Your task to perform on an android device: Go to Maps Image 0: 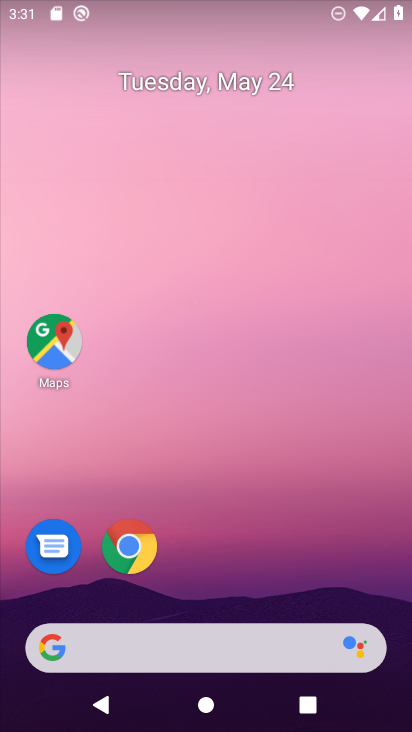
Step 0: click (56, 336)
Your task to perform on an android device: Go to Maps Image 1: 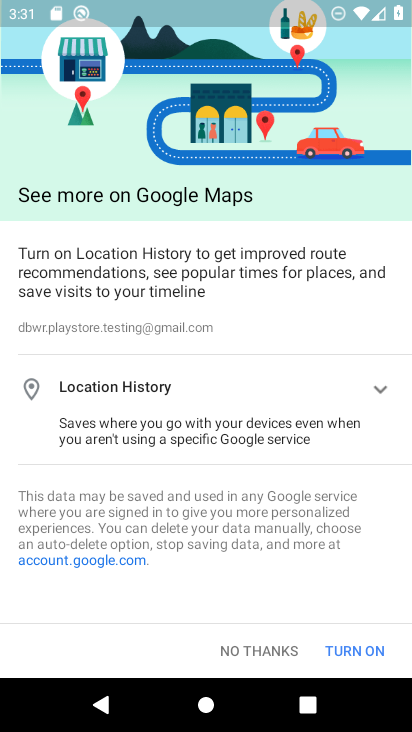
Step 1: click (265, 653)
Your task to perform on an android device: Go to Maps Image 2: 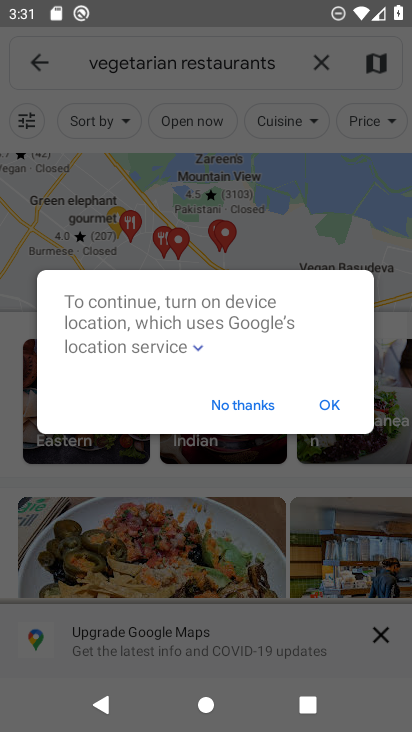
Step 2: click (263, 398)
Your task to perform on an android device: Go to Maps Image 3: 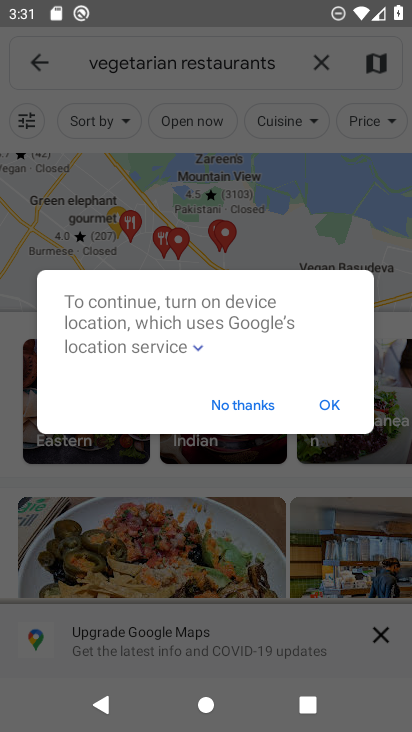
Step 3: task complete